Your task to perform on an android device: open app "YouTube Kids" (install if not already installed) Image 0: 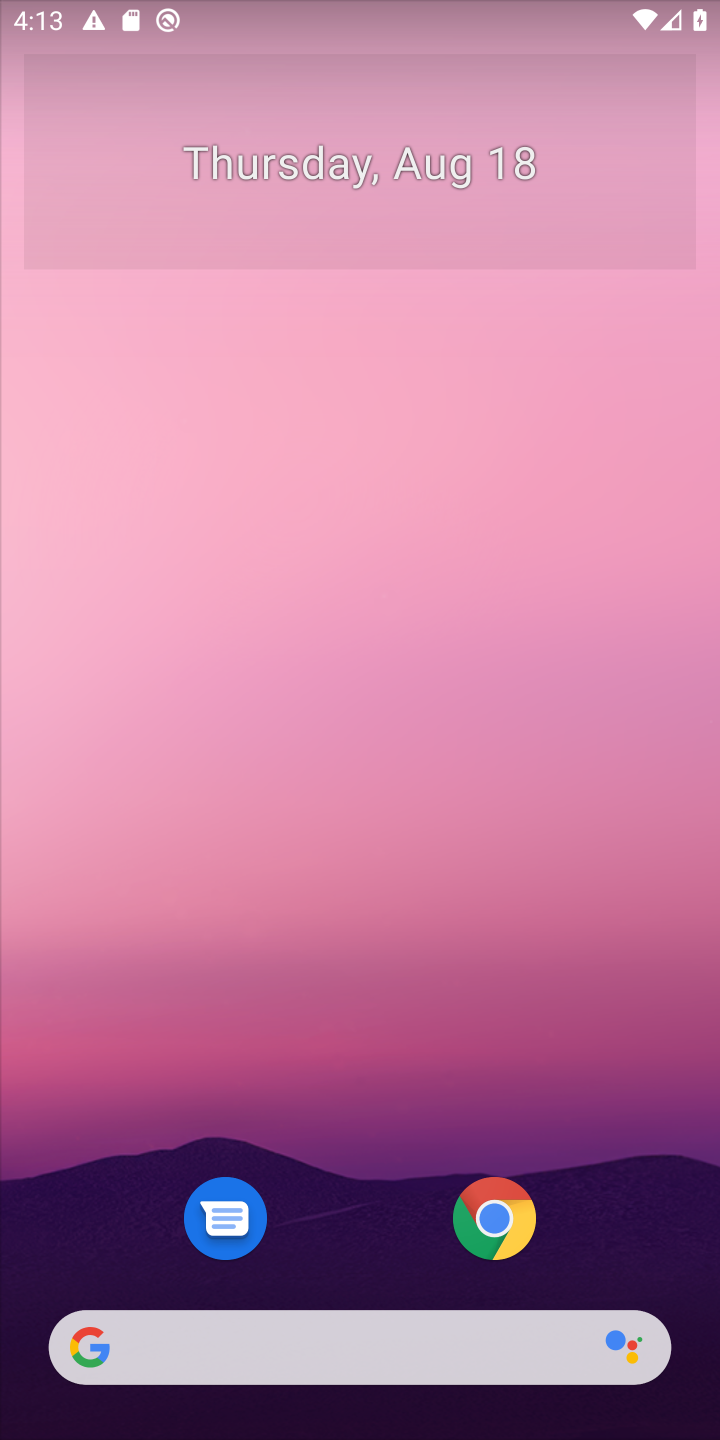
Step 0: drag from (357, 1093) to (351, 406)
Your task to perform on an android device: open app "YouTube Kids" (install if not already installed) Image 1: 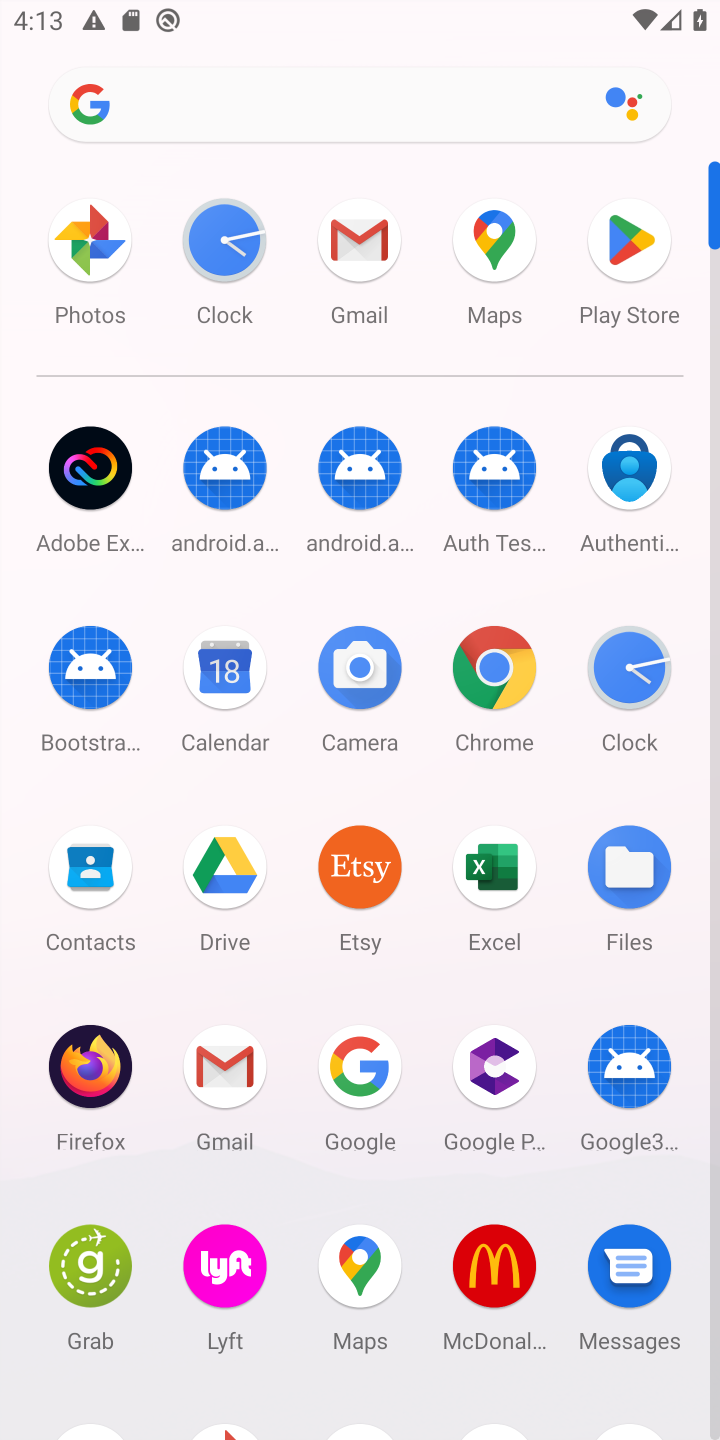
Step 1: click (602, 271)
Your task to perform on an android device: open app "YouTube Kids" (install if not already installed) Image 2: 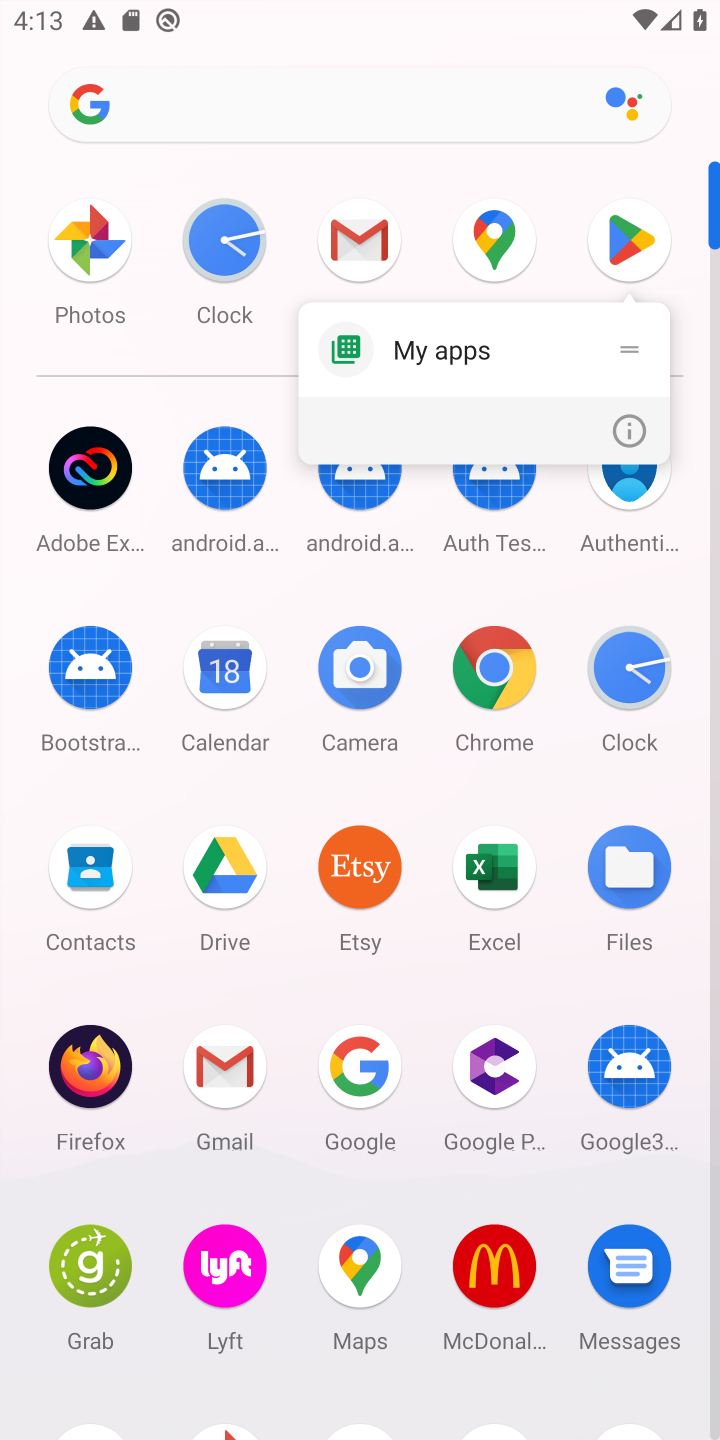
Step 2: click (644, 209)
Your task to perform on an android device: open app "YouTube Kids" (install if not already installed) Image 3: 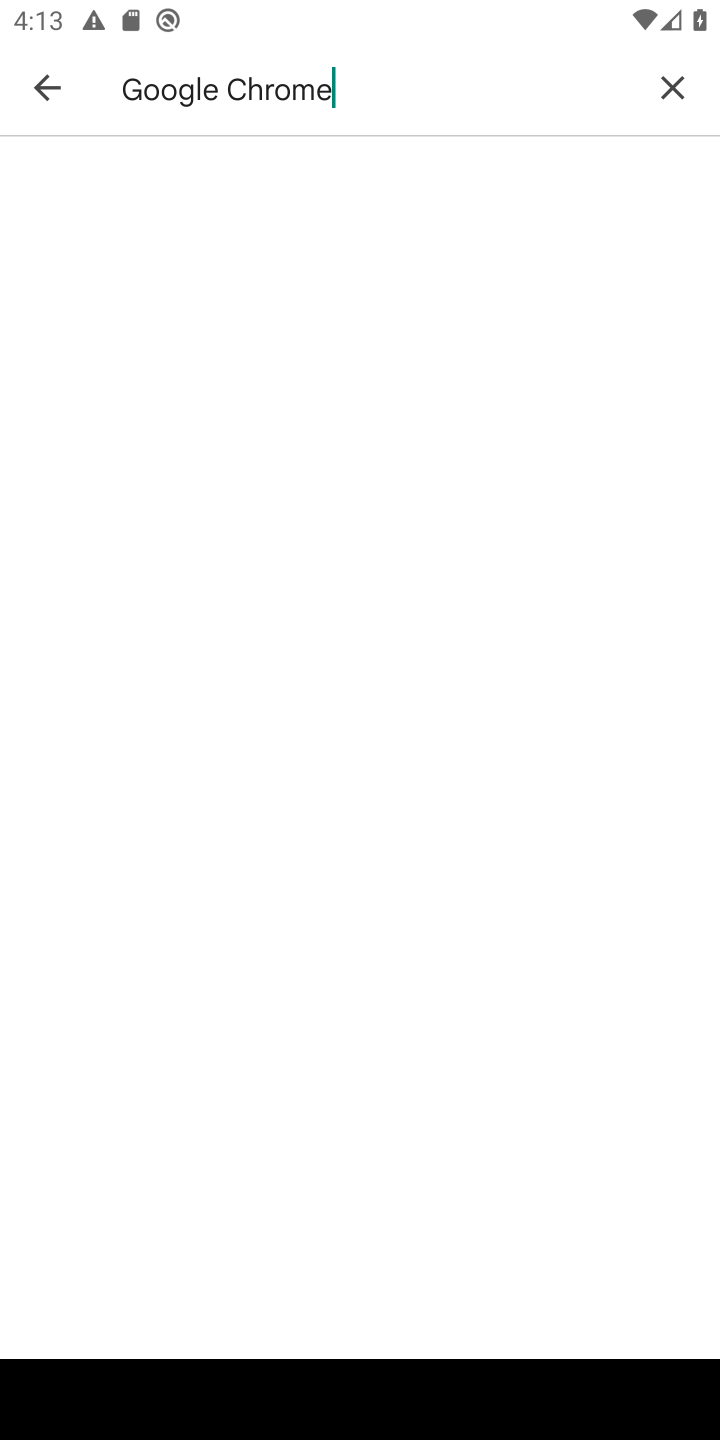
Step 3: click (671, 81)
Your task to perform on an android device: open app "YouTube Kids" (install if not already installed) Image 4: 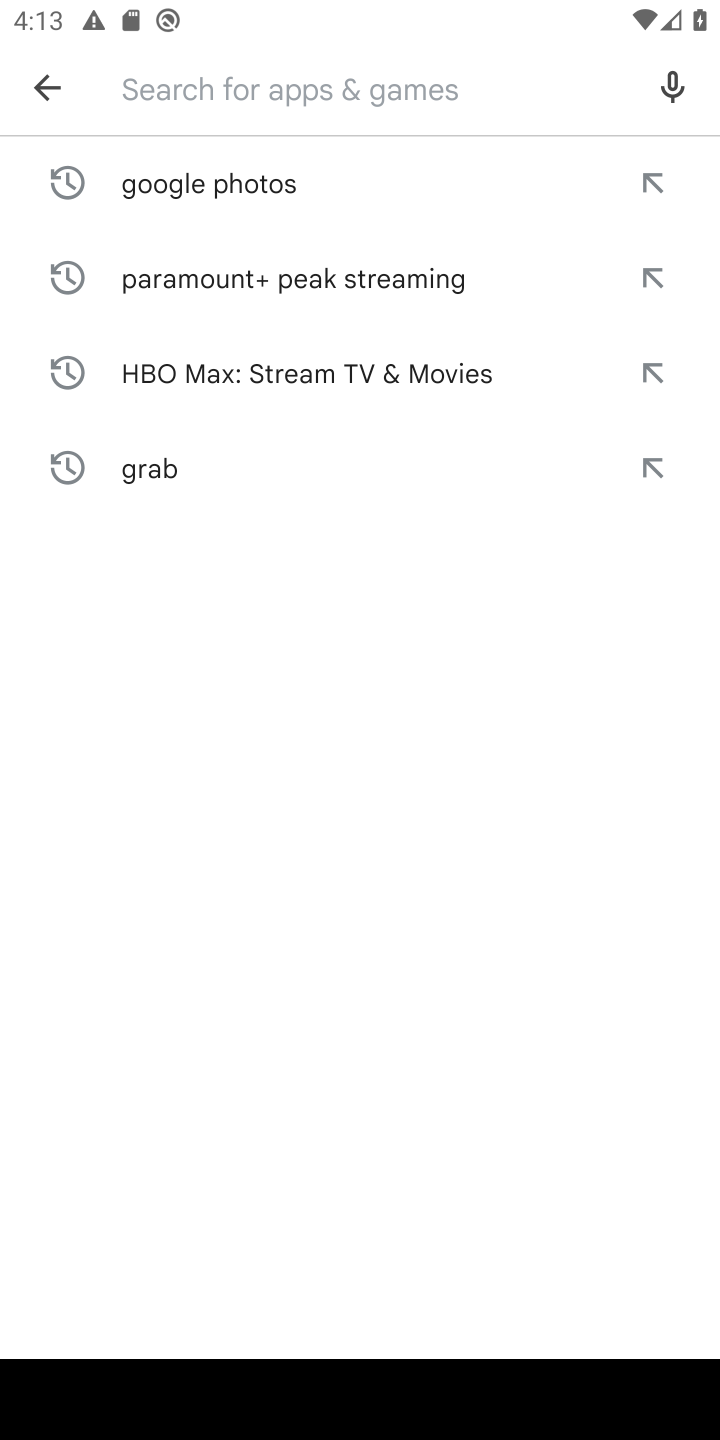
Step 4: type "YouTube Kids"
Your task to perform on an android device: open app "YouTube Kids" (install if not already installed) Image 5: 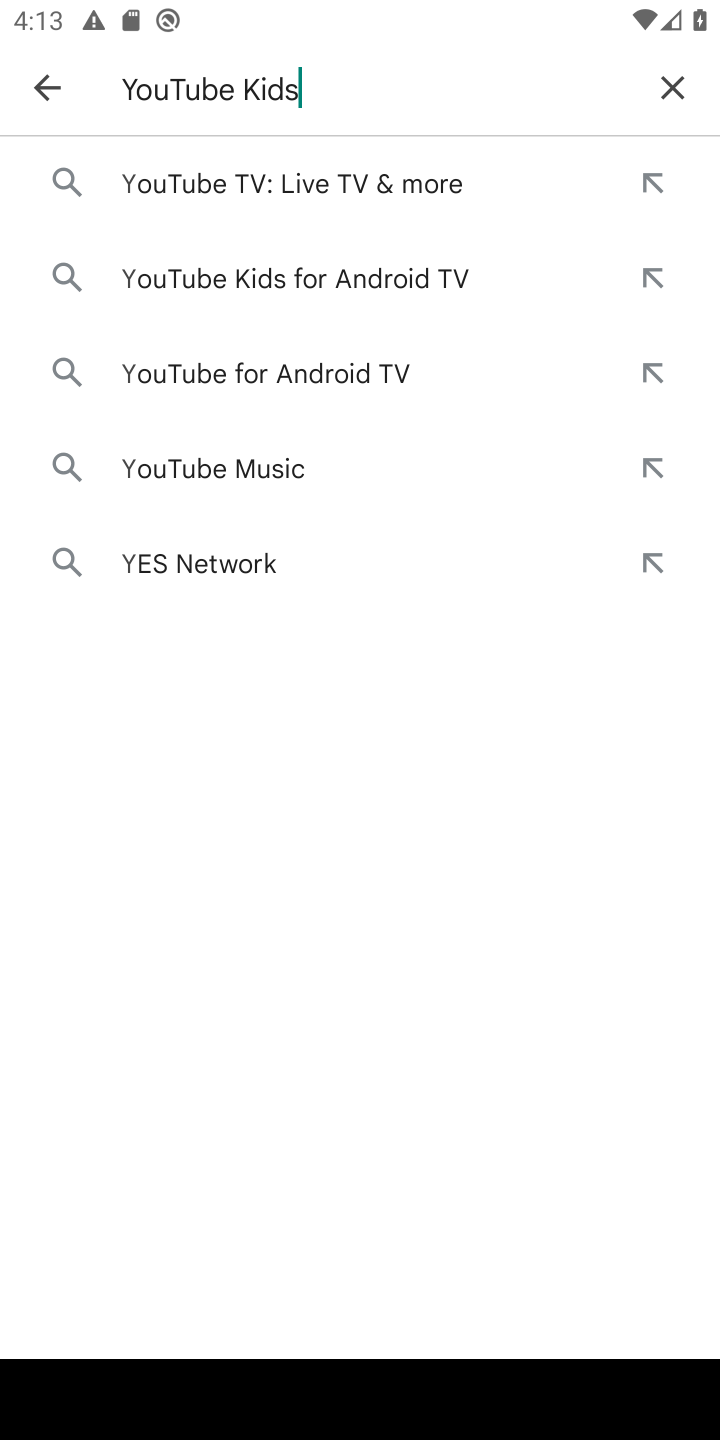
Step 5: type ""
Your task to perform on an android device: open app "YouTube Kids" (install if not already installed) Image 6: 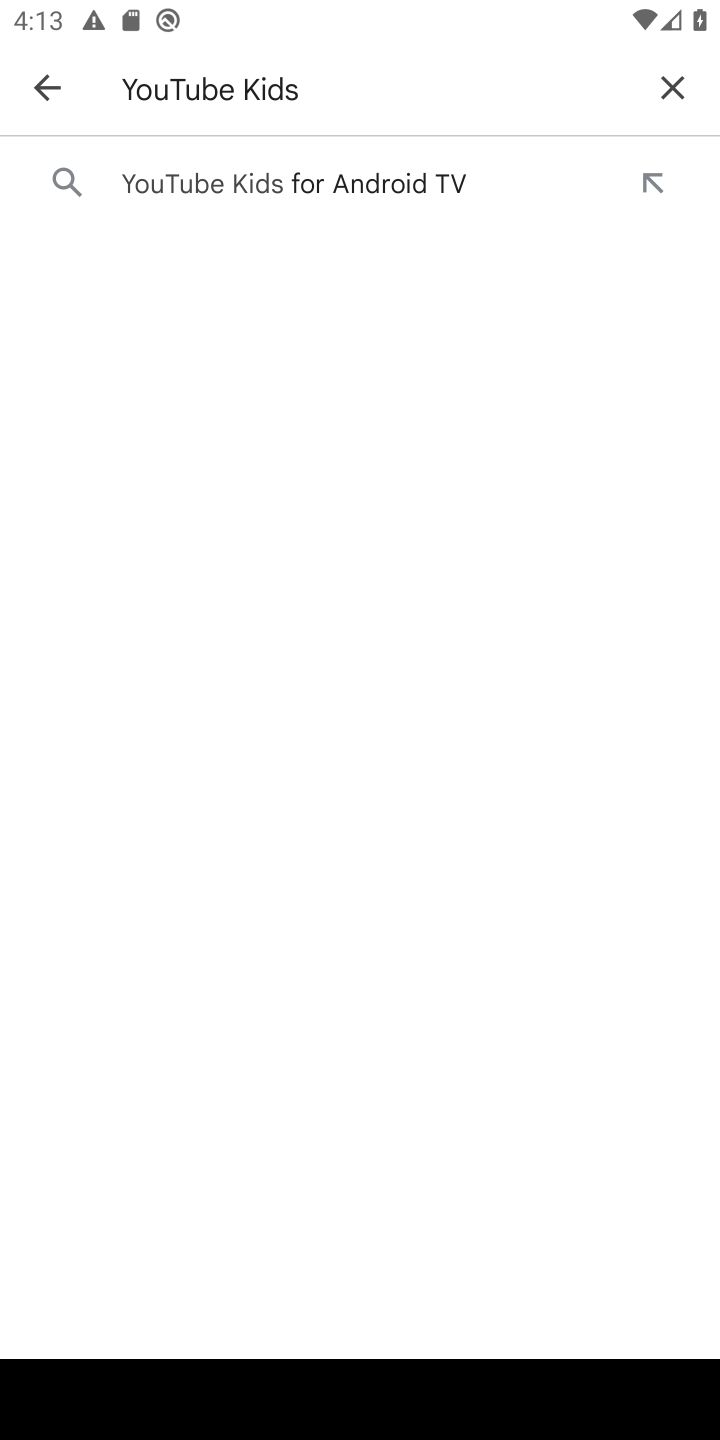
Step 6: click (269, 200)
Your task to perform on an android device: open app "YouTube Kids" (install if not already installed) Image 7: 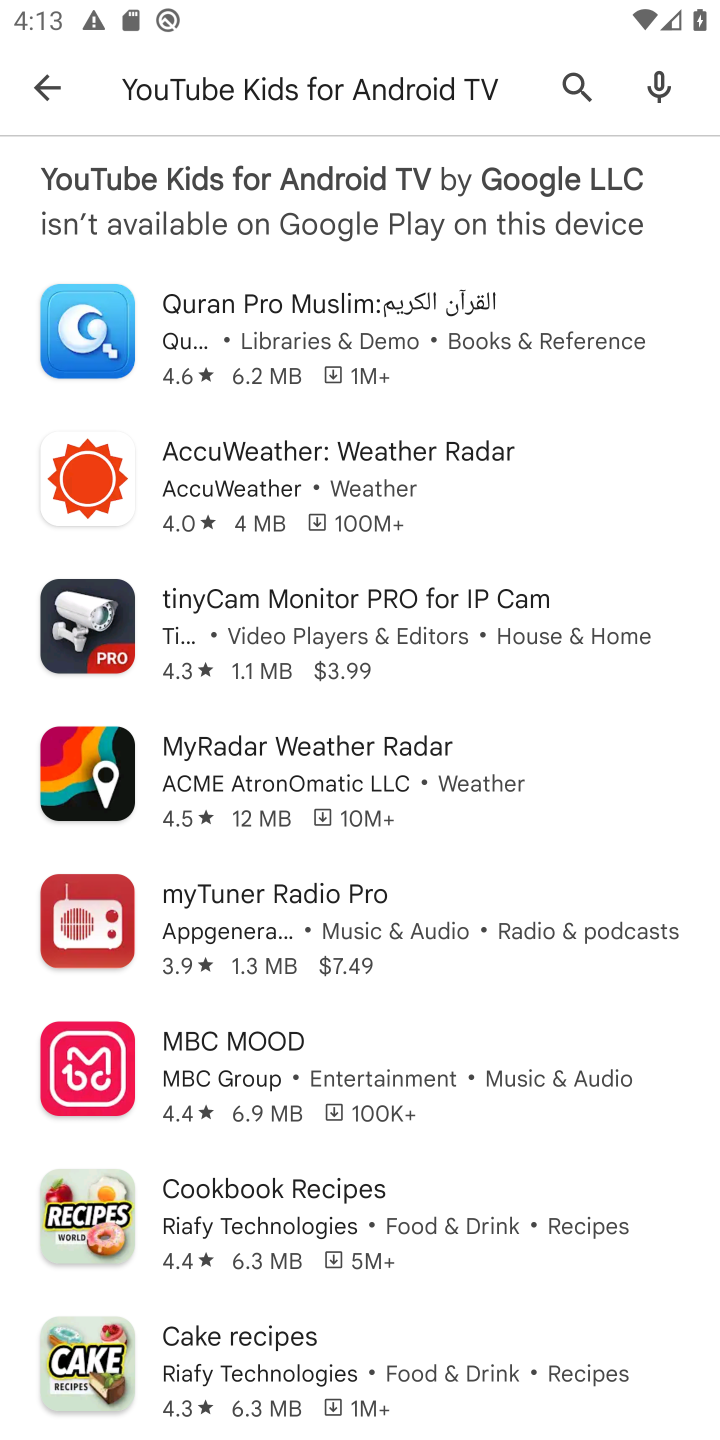
Step 7: task complete